Your task to perform on an android device: What's on the menu at Denny's? Image 0: 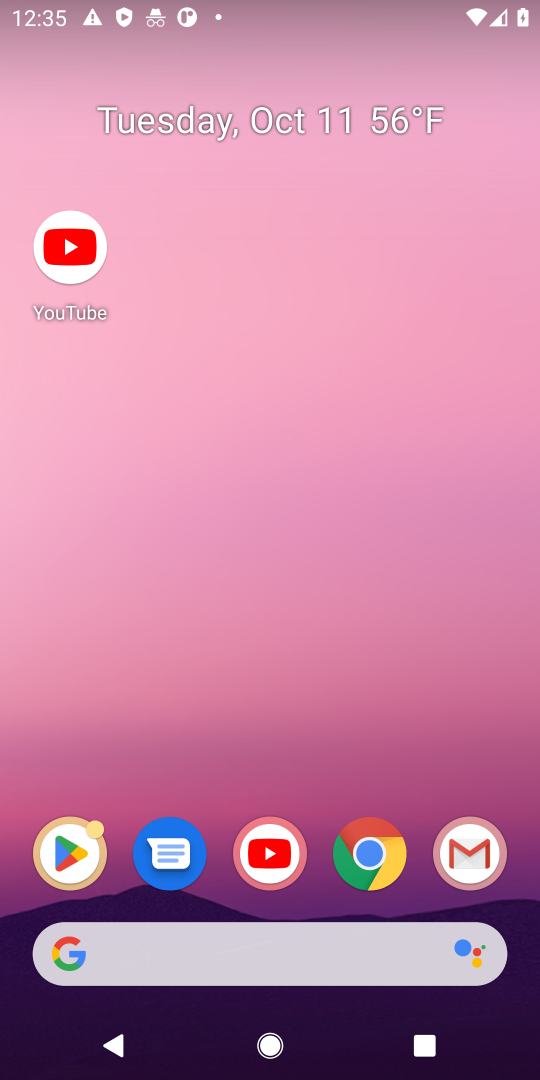
Step 0: drag from (302, 800) to (337, 2)
Your task to perform on an android device: What's on the menu at Denny's? Image 1: 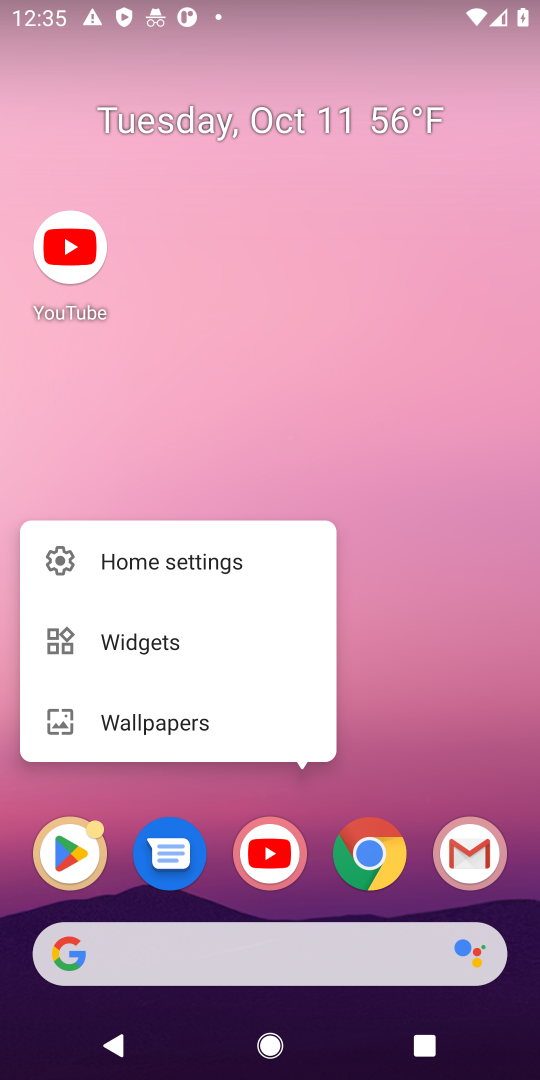
Step 1: click (404, 674)
Your task to perform on an android device: What's on the menu at Denny's? Image 2: 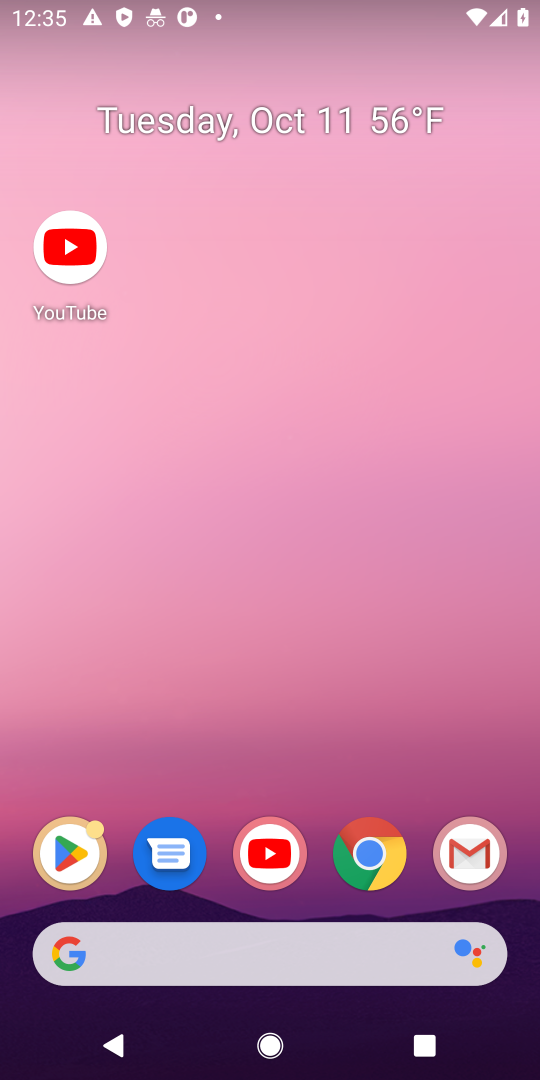
Step 2: drag from (298, 813) to (319, 66)
Your task to perform on an android device: What's on the menu at Denny's? Image 3: 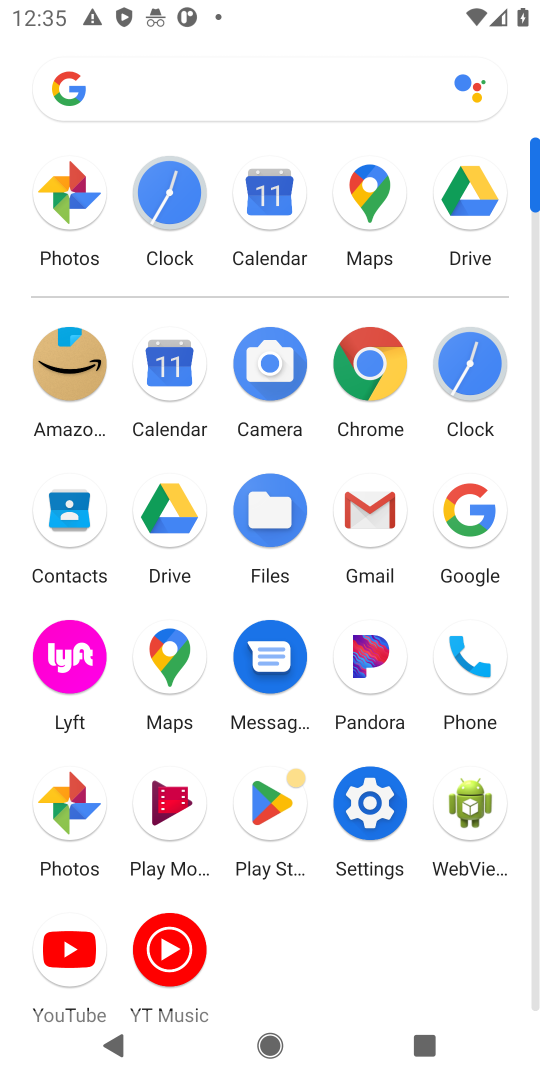
Step 3: click (367, 368)
Your task to perform on an android device: What's on the menu at Denny's? Image 4: 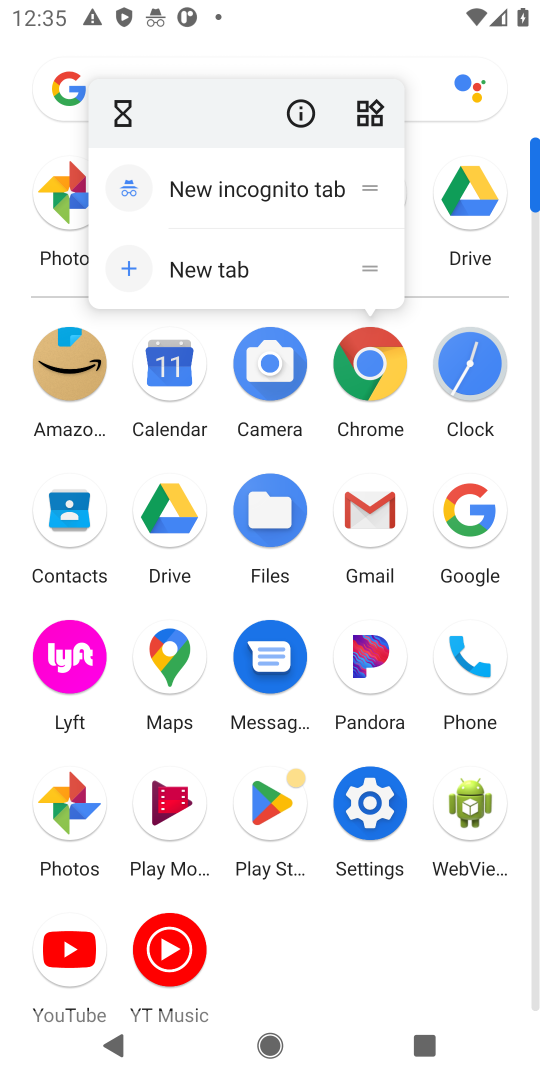
Step 4: click (380, 368)
Your task to perform on an android device: What's on the menu at Denny's? Image 5: 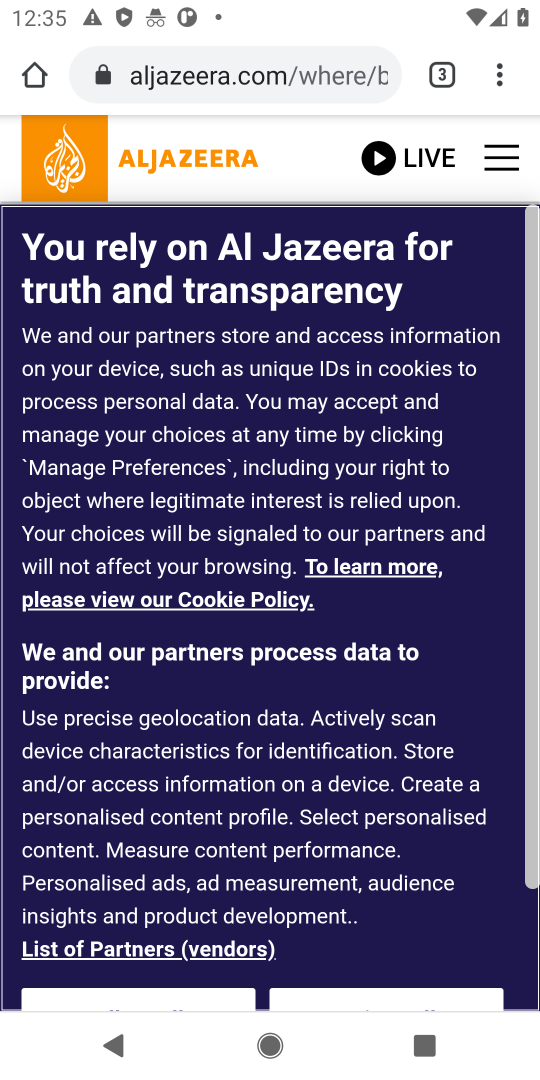
Step 5: click (224, 73)
Your task to perform on an android device: What's on the menu at Denny's? Image 6: 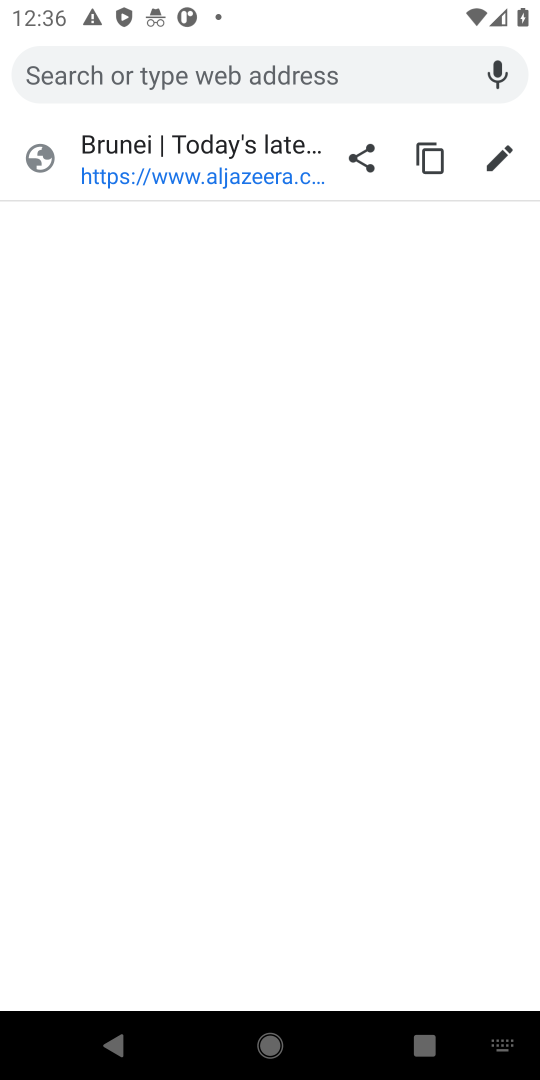
Step 6: type "What's on the menu at Denny's?"
Your task to perform on an android device: What's on the menu at Denny's? Image 7: 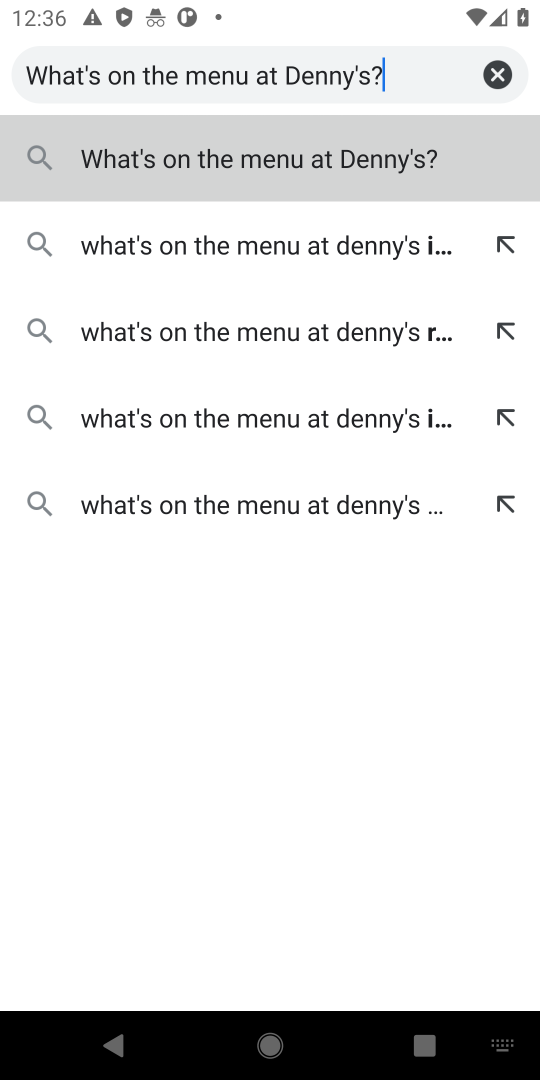
Step 7: click (324, 148)
Your task to perform on an android device: What's on the menu at Denny's? Image 8: 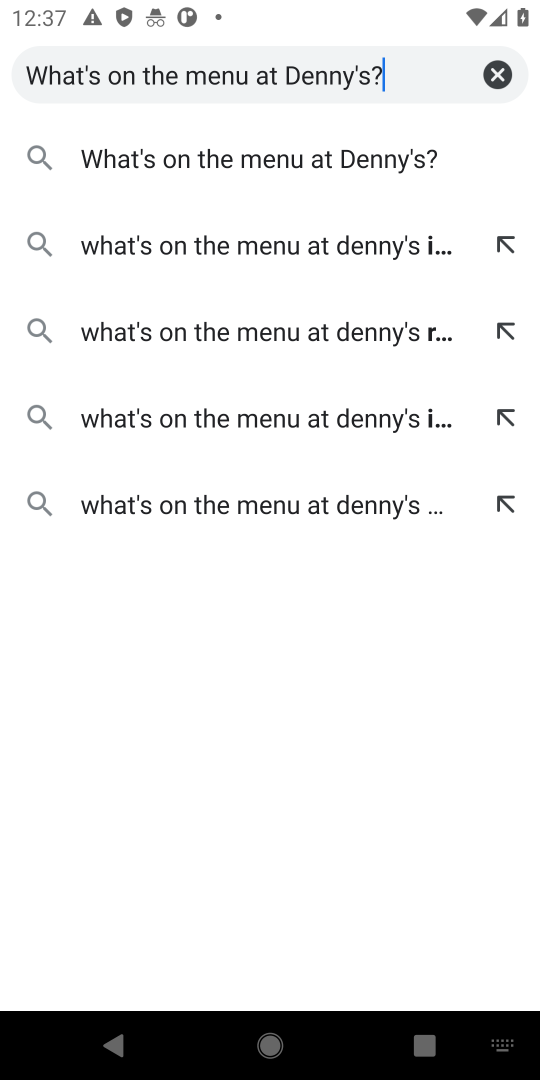
Step 8: click (324, 161)
Your task to perform on an android device: What's on the menu at Denny's? Image 9: 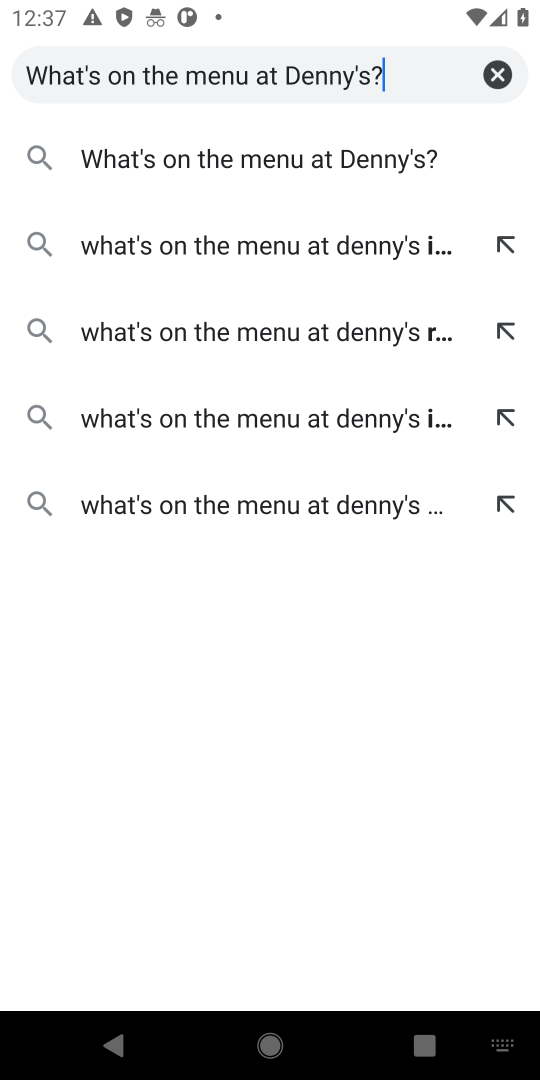
Step 9: click (339, 160)
Your task to perform on an android device: What's on the menu at Denny's? Image 10: 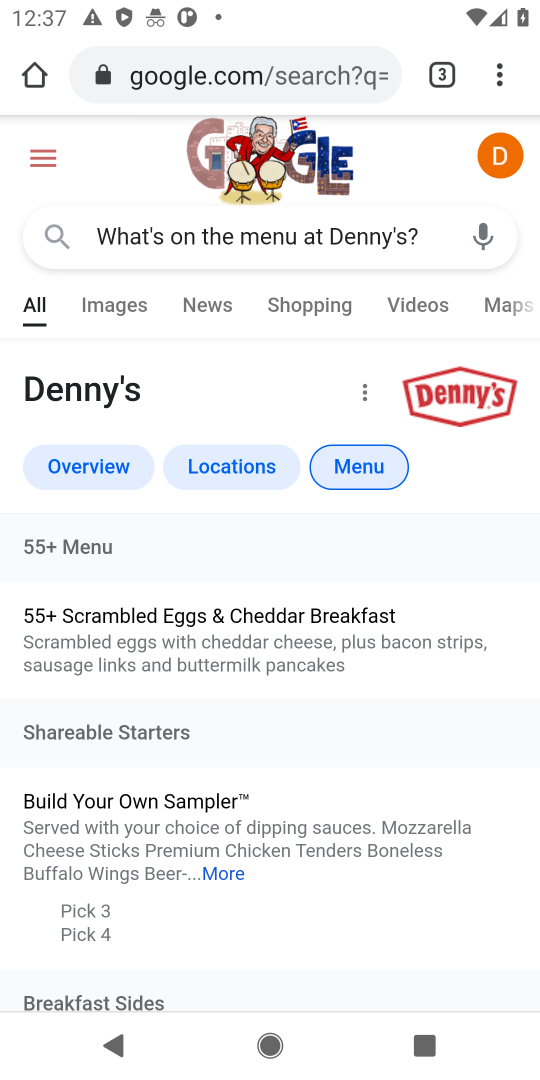
Step 10: task complete